Your task to perform on an android device: Search for macbook pro on bestbuy, select the first entry, add it to the cart, then select checkout. Image 0: 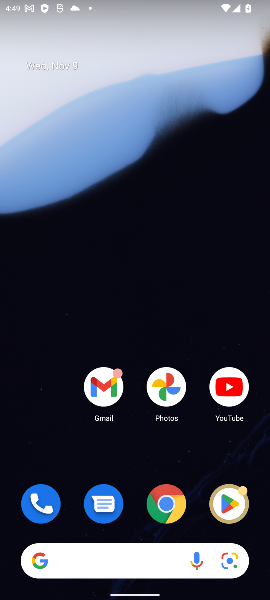
Step 0: click (117, 554)
Your task to perform on an android device: Search for macbook pro on bestbuy, select the first entry, add it to the cart, then select checkout. Image 1: 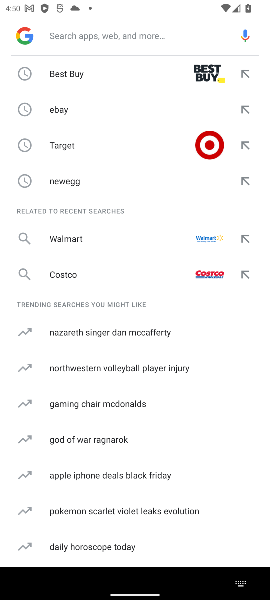
Step 1: click (115, 67)
Your task to perform on an android device: Search for macbook pro on bestbuy, select the first entry, add it to the cart, then select checkout. Image 2: 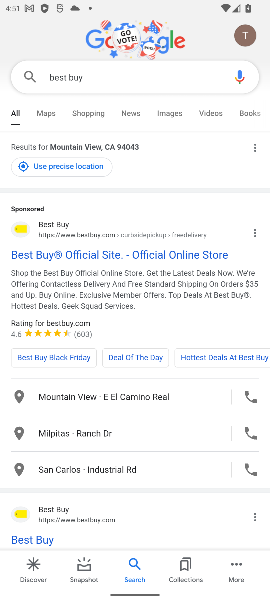
Step 2: click (48, 514)
Your task to perform on an android device: Search for macbook pro on bestbuy, select the first entry, add it to the cart, then select checkout. Image 3: 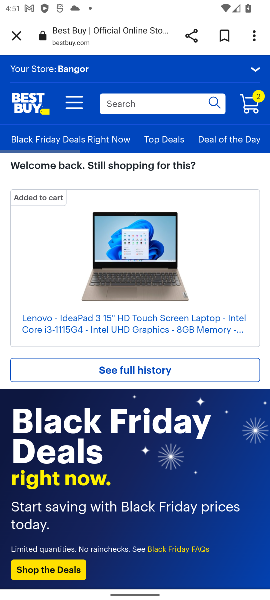
Step 3: click (152, 107)
Your task to perform on an android device: Search for macbook pro on bestbuy, select the first entry, add it to the cart, then select checkout. Image 4: 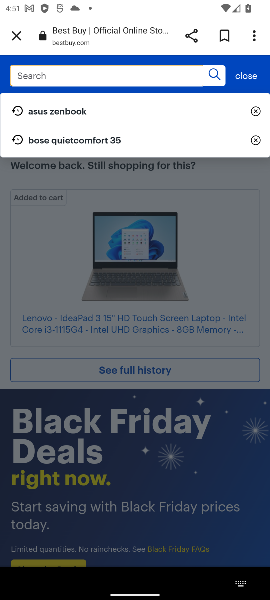
Step 4: type "macbook pro"
Your task to perform on an android device: Search for macbook pro on bestbuy, select the first entry, add it to the cart, then select checkout. Image 5: 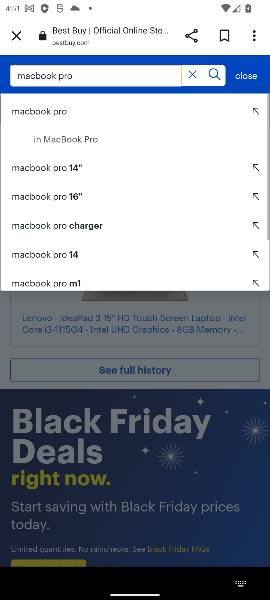
Step 5: click (47, 110)
Your task to perform on an android device: Search for macbook pro on bestbuy, select the first entry, add it to the cart, then select checkout. Image 6: 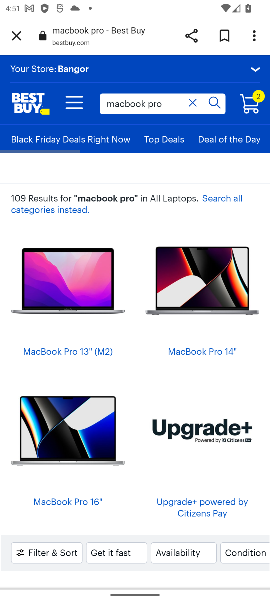
Step 6: click (68, 305)
Your task to perform on an android device: Search for macbook pro on bestbuy, select the first entry, add it to the cart, then select checkout. Image 7: 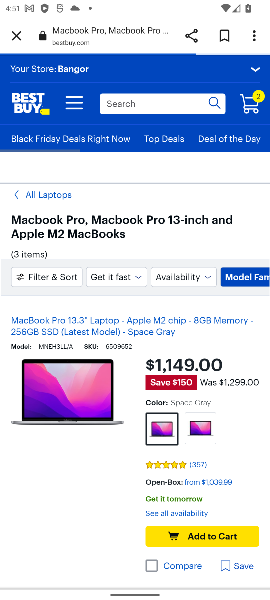
Step 7: click (195, 533)
Your task to perform on an android device: Search for macbook pro on bestbuy, select the first entry, add it to the cart, then select checkout. Image 8: 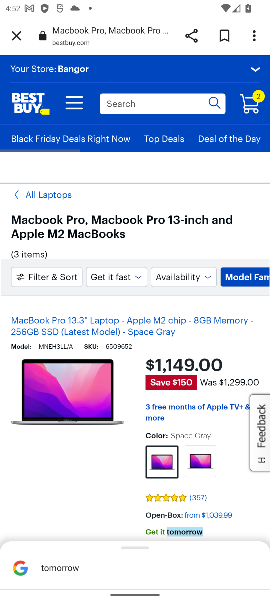
Step 8: click (83, 520)
Your task to perform on an android device: Search for macbook pro on bestbuy, select the first entry, add it to the cart, then select checkout. Image 9: 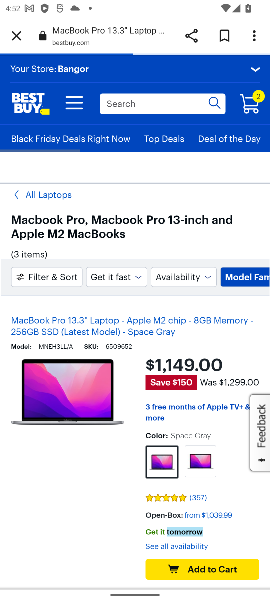
Step 9: click (195, 564)
Your task to perform on an android device: Search for macbook pro on bestbuy, select the first entry, add it to the cart, then select checkout. Image 10: 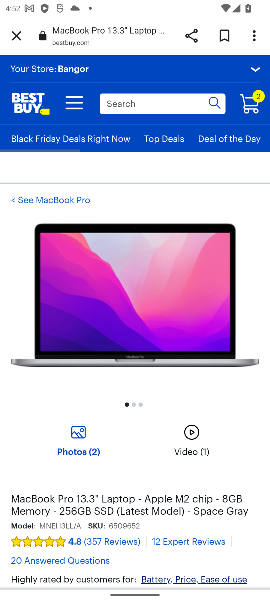
Step 10: task complete